Your task to perform on an android device: What's the weather? Image 0: 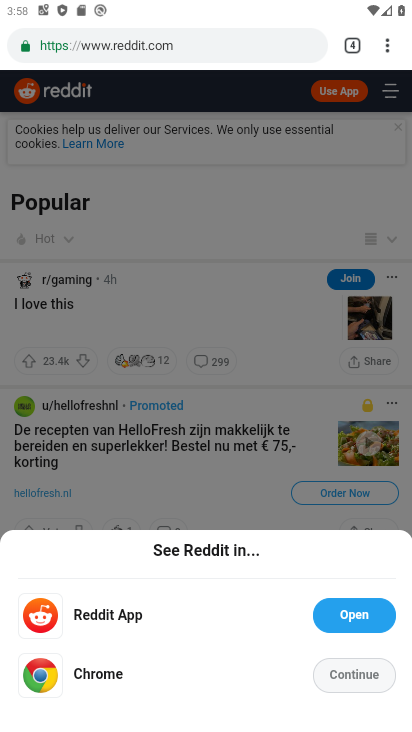
Step 0: drag from (200, 608) to (239, 226)
Your task to perform on an android device: What's the weather? Image 1: 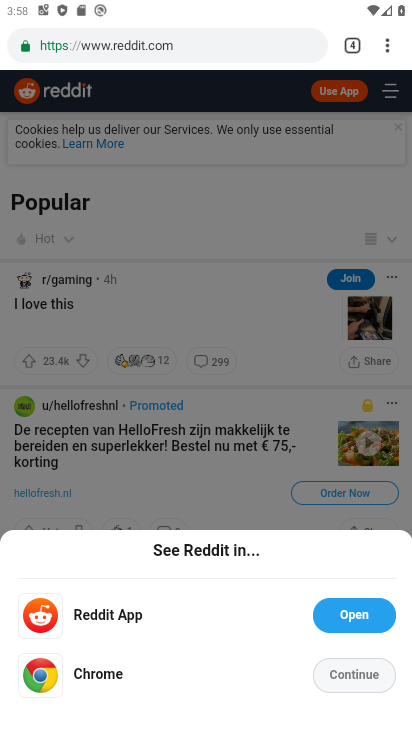
Step 1: press back button
Your task to perform on an android device: What's the weather? Image 2: 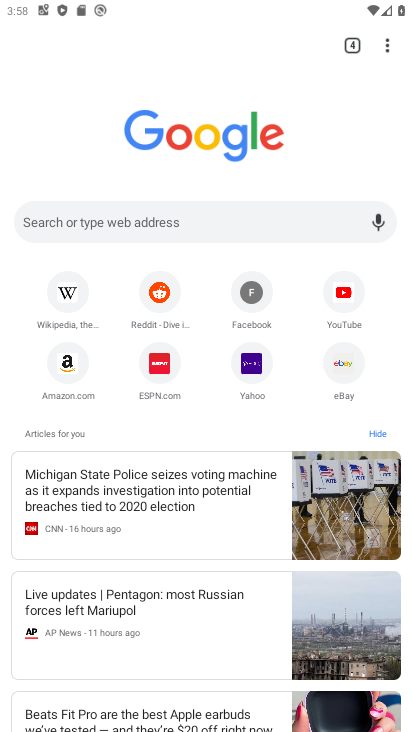
Step 2: click (226, 228)
Your task to perform on an android device: What's the weather? Image 3: 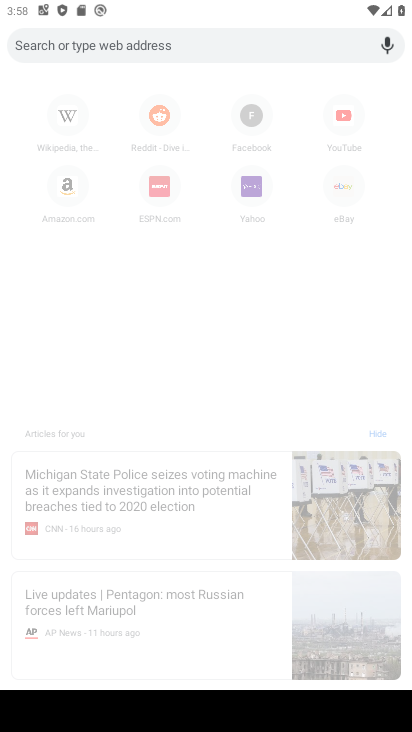
Step 3: click (95, 36)
Your task to perform on an android device: What's the weather? Image 4: 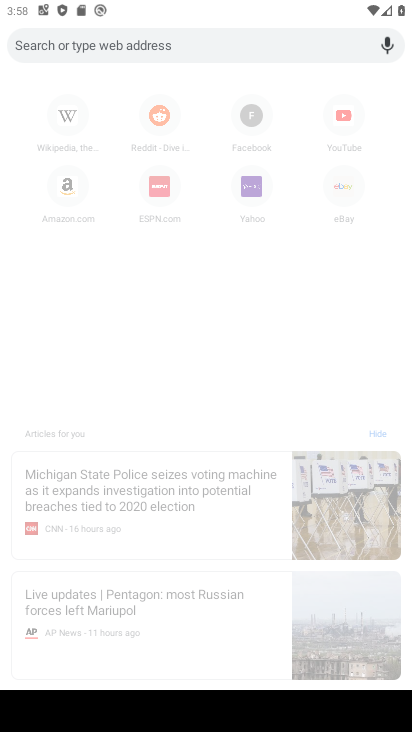
Step 4: type "wearher"
Your task to perform on an android device: What's the weather? Image 5: 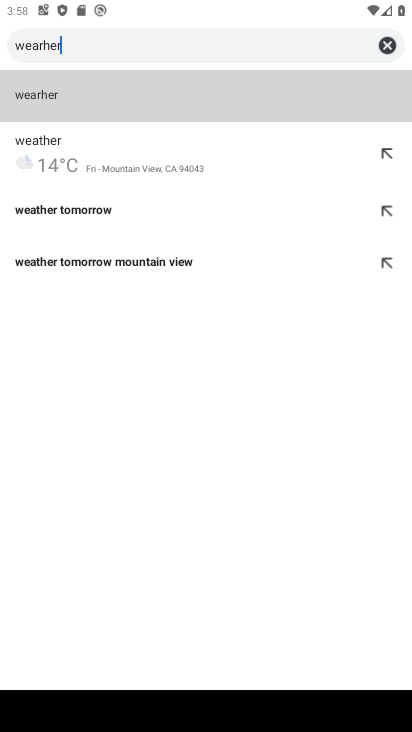
Step 5: click (106, 148)
Your task to perform on an android device: What's the weather? Image 6: 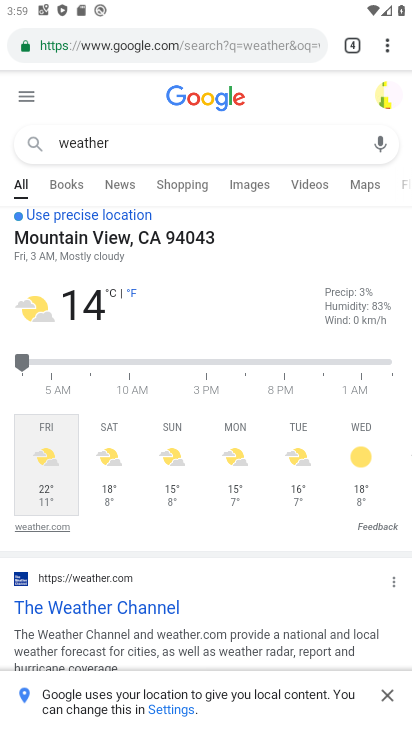
Step 6: task complete